Your task to perform on an android device: Go to eBay Image 0: 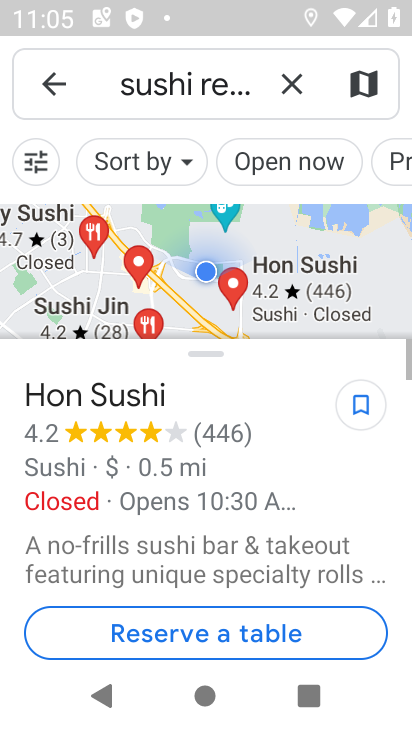
Step 0: press home button
Your task to perform on an android device: Go to eBay Image 1: 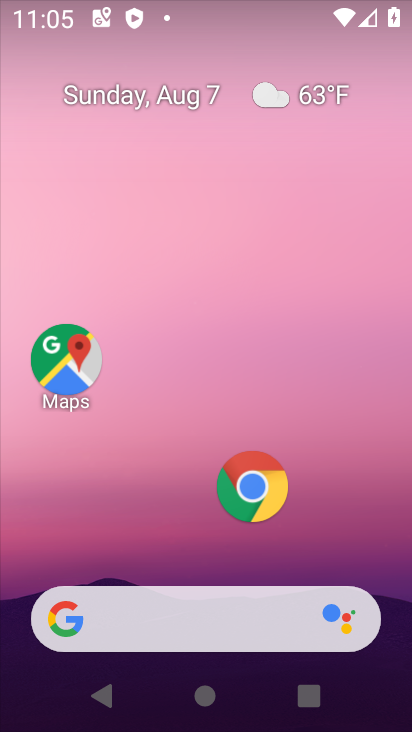
Step 1: click (170, 625)
Your task to perform on an android device: Go to eBay Image 2: 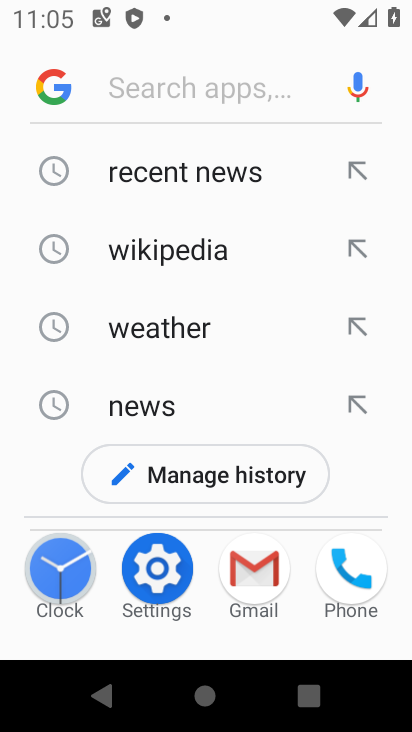
Step 2: type "ebay "
Your task to perform on an android device: Go to eBay Image 3: 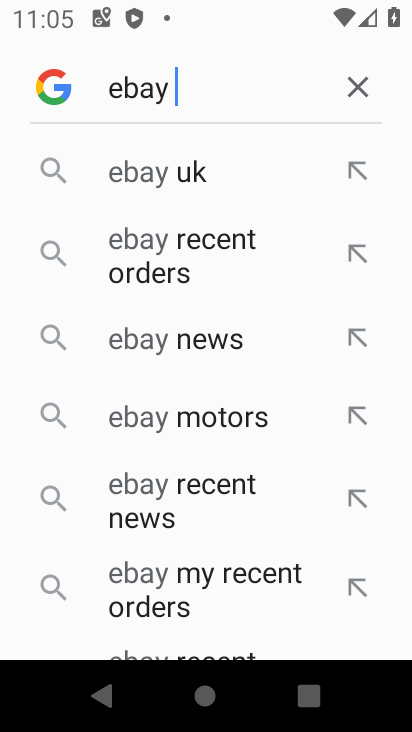
Step 3: press enter
Your task to perform on an android device: Go to eBay Image 4: 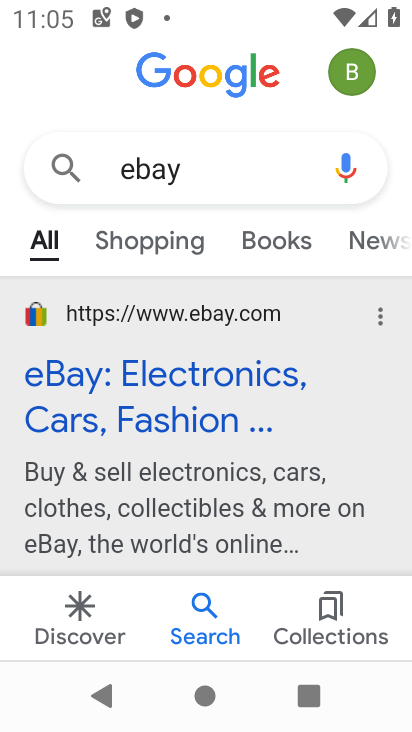
Step 4: task complete